Your task to perform on an android device: toggle airplane mode Image 0: 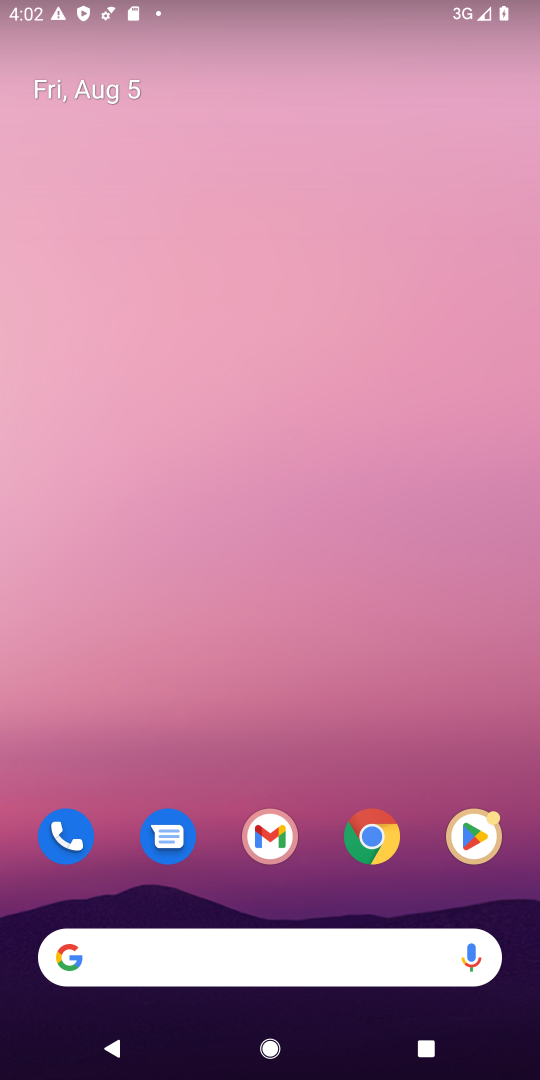
Step 0: drag from (272, 650) to (25, 0)
Your task to perform on an android device: toggle airplane mode Image 1: 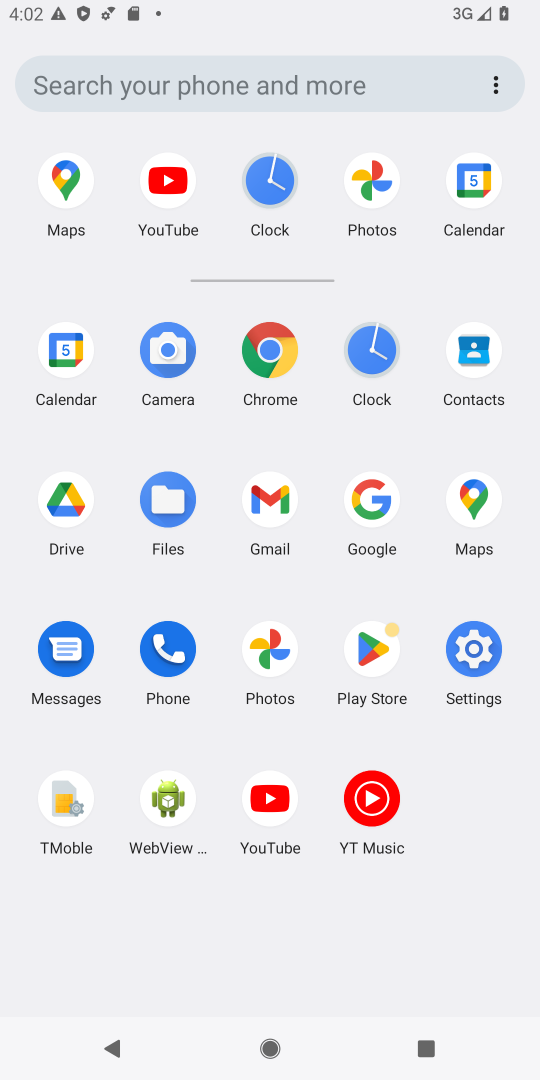
Step 1: click (502, 651)
Your task to perform on an android device: toggle airplane mode Image 2: 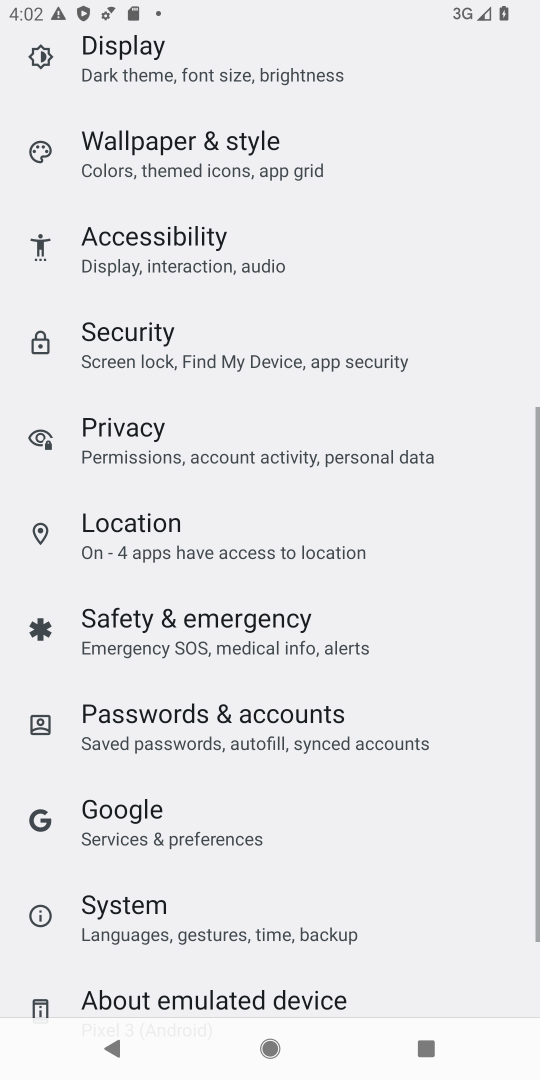
Step 2: drag from (260, 206) to (351, 904)
Your task to perform on an android device: toggle airplane mode Image 3: 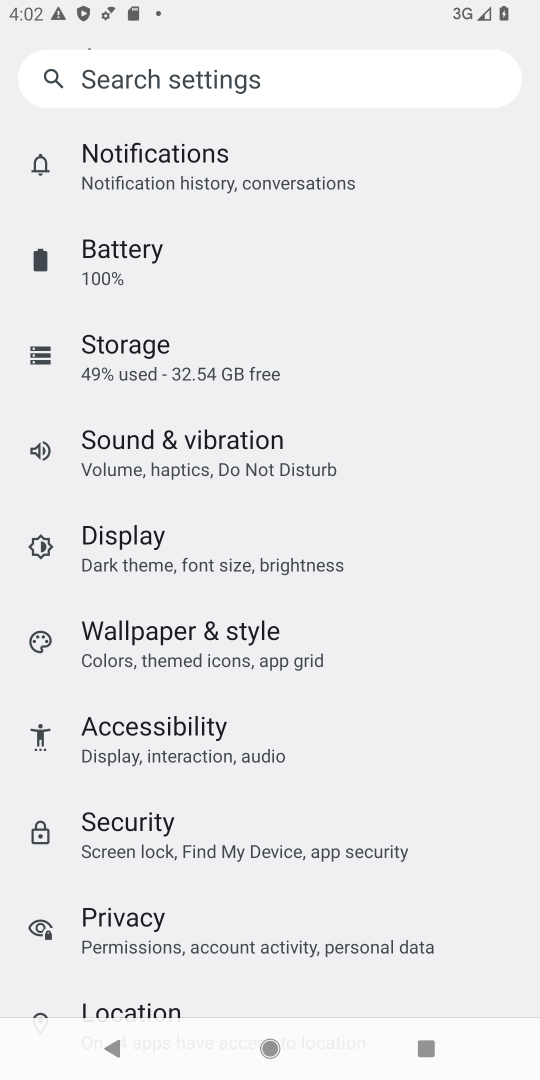
Step 3: drag from (249, 468) to (305, 851)
Your task to perform on an android device: toggle airplane mode Image 4: 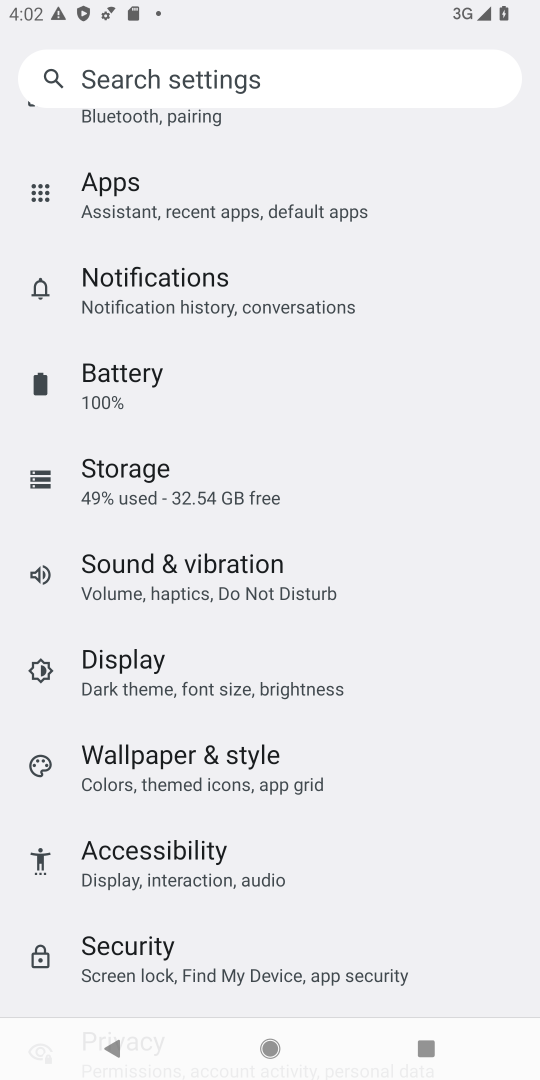
Step 4: drag from (233, 187) to (201, 878)
Your task to perform on an android device: toggle airplane mode Image 5: 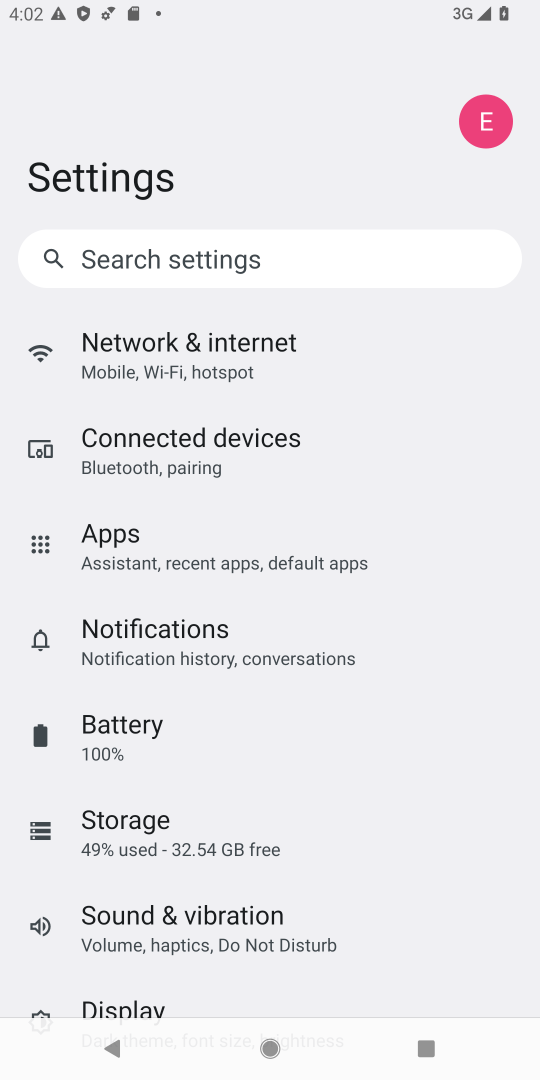
Step 5: click (138, 364)
Your task to perform on an android device: toggle airplane mode Image 6: 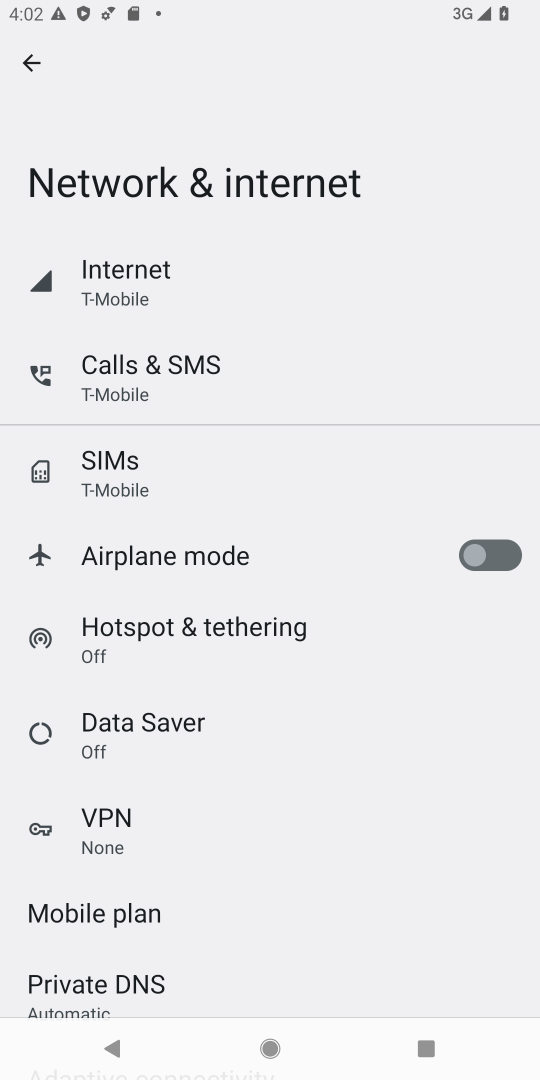
Step 6: click (161, 554)
Your task to perform on an android device: toggle airplane mode Image 7: 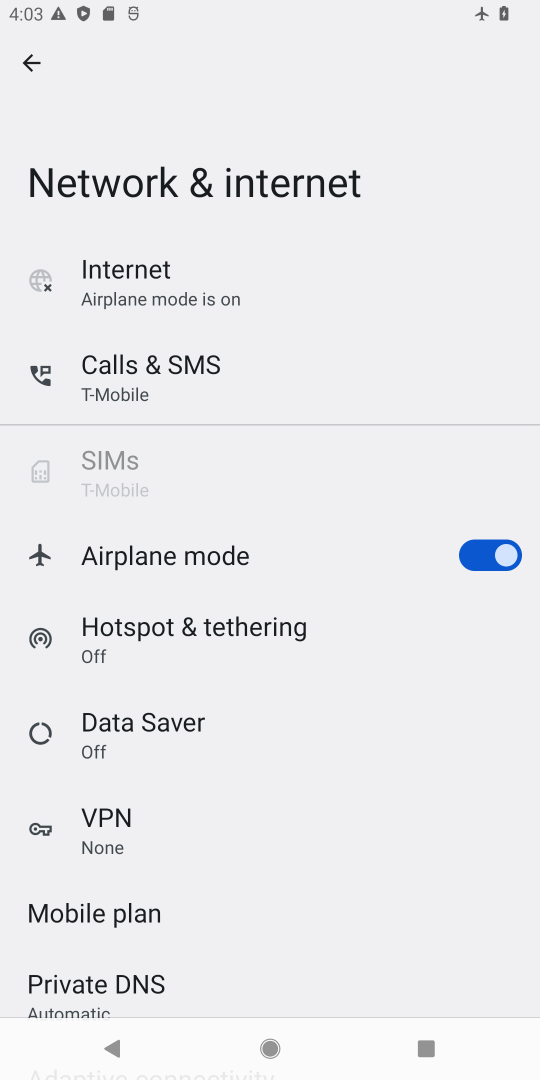
Step 7: task complete